Your task to perform on an android device: Open Amazon Image 0: 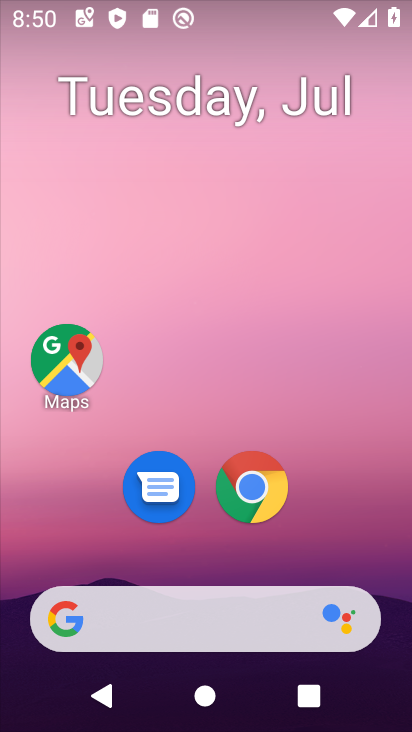
Step 0: click (237, 490)
Your task to perform on an android device: Open Amazon Image 1: 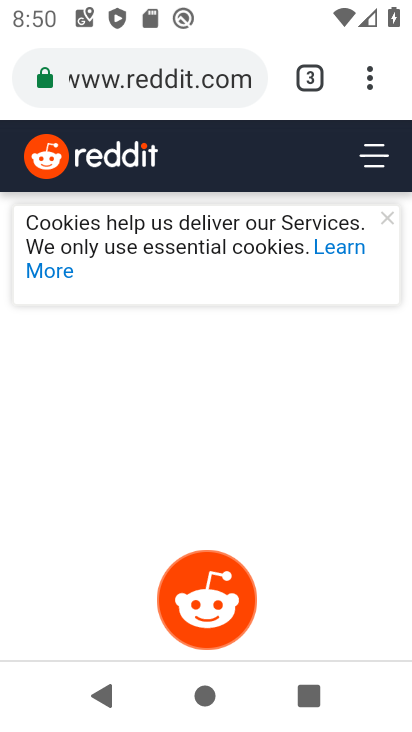
Step 1: click (318, 69)
Your task to perform on an android device: Open Amazon Image 2: 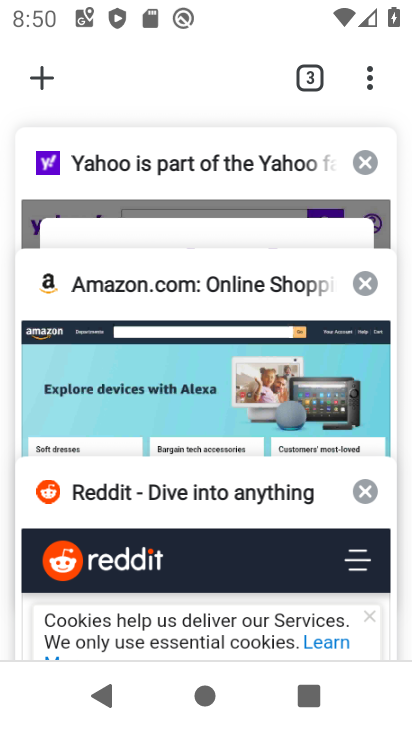
Step 2: click (137, 266)
Your task to perform on an android device: Open Amazon Image 3: 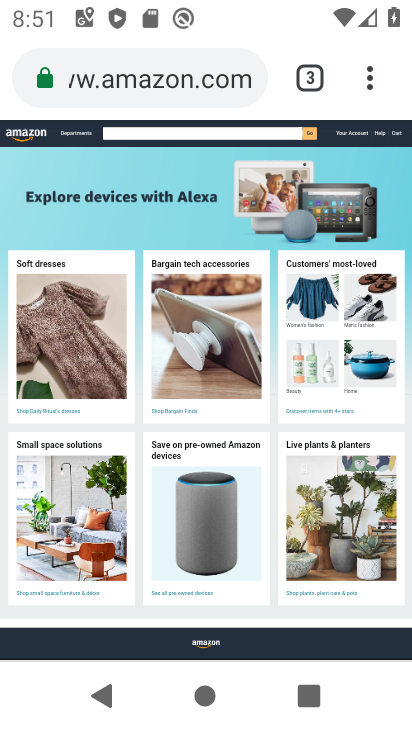
Step 3: task complete